Your task to perform on an android device: Open the phone app and click the voicemail tab. Image 0: 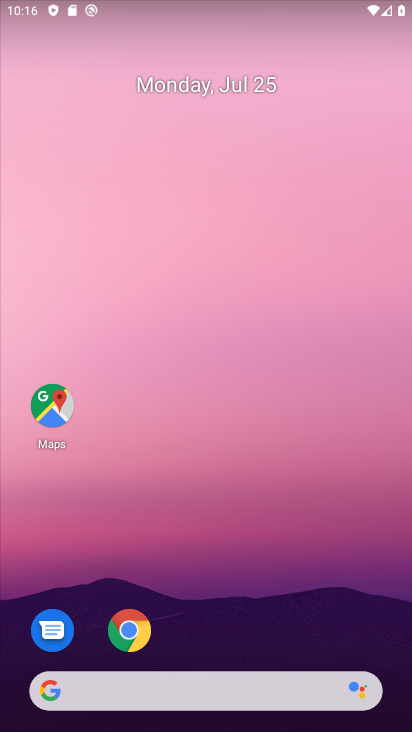
Step 0: drag from (261, 523) to (209, 27)
Your task to perform on an android device: Open the phone app and click the voicemail tab. Image 1: 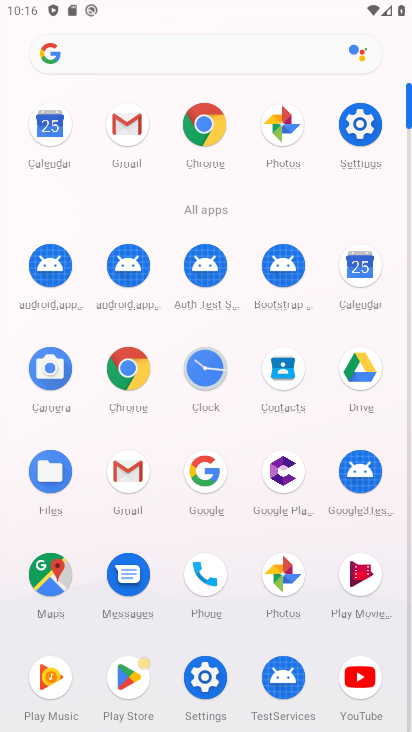
Step 1: click (214, 576)
Your task to perform on an android device: Open the phone app and click the voicemail tab. Image 2: 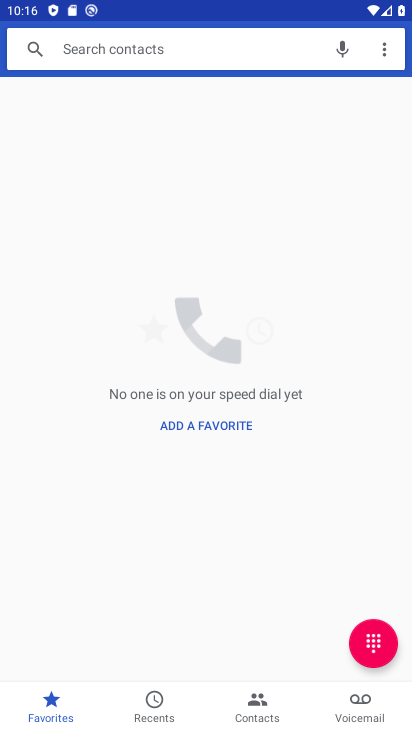
Step 2: click (388, 728)
Your task to perform on an android device: Open the phone app and click the voicemail tab. Image 3: 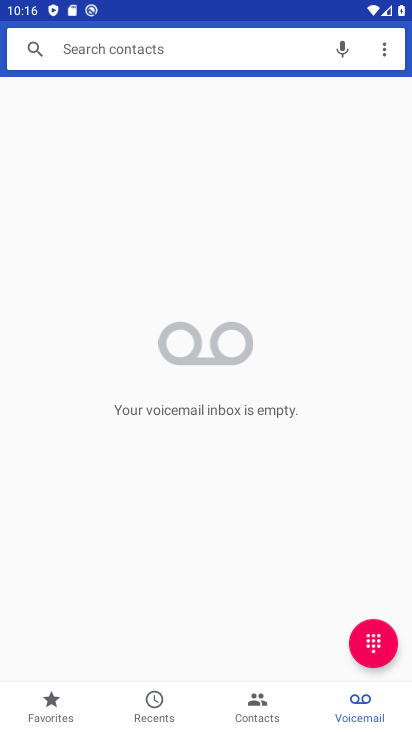
Step 3: task complete